Your task to perform on an android device: Open network settings Image 0: 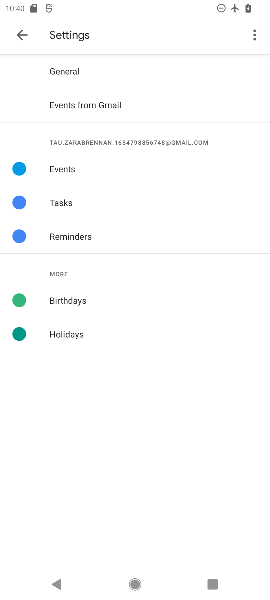
Step 0: press home button
Your task to perform on an android device: Open network settings Image 1: 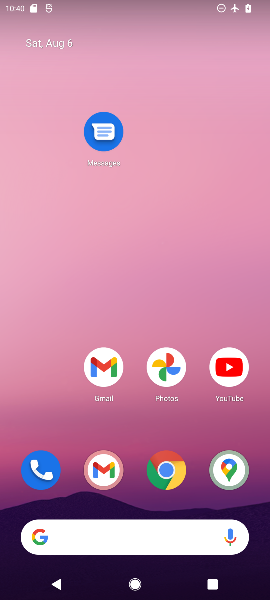
Step 1: drag from (169, 481) to (184, 123)
Your task to perform on an android device: Open network settings Image 2: 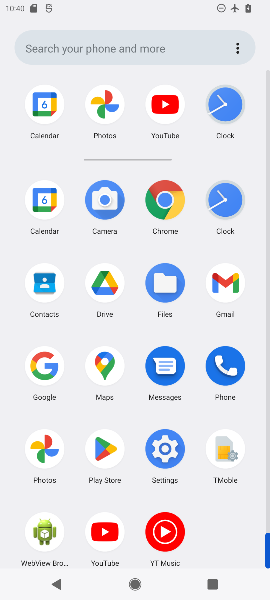
Step 2: click (163, 451)
Your task to perform on an android device: Open network settings Image 3: 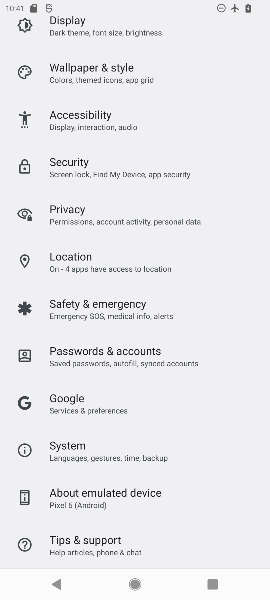
Step 3: drag from (103, 200) to (172, 548)
Your task to perform on an android device: Open network settings Image 4: 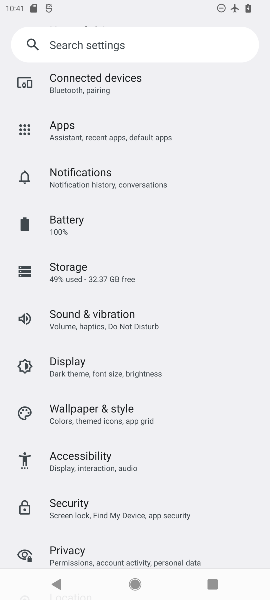
Step 4: drag from (157, 194) to (143, 595)
Your task to perform on an android device: Open network settings Image 5: 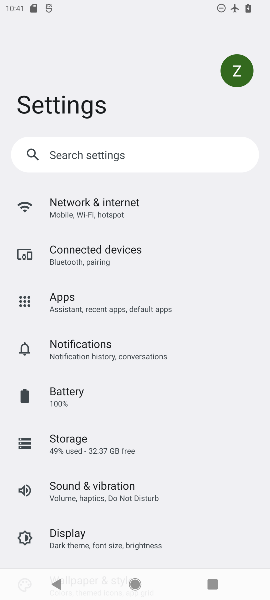
Step 5: click (130, 206)
Your task to perform on an android device: Open network settings Image 6: 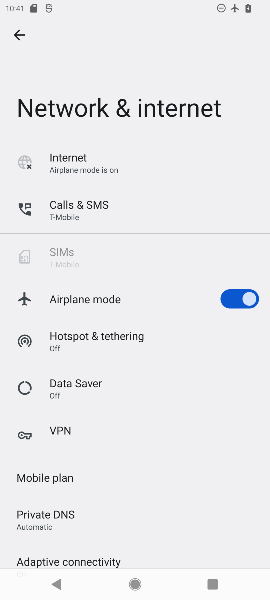
Step 6: task complete